Your task to perform on an android device: Go to notification settings Image 0: 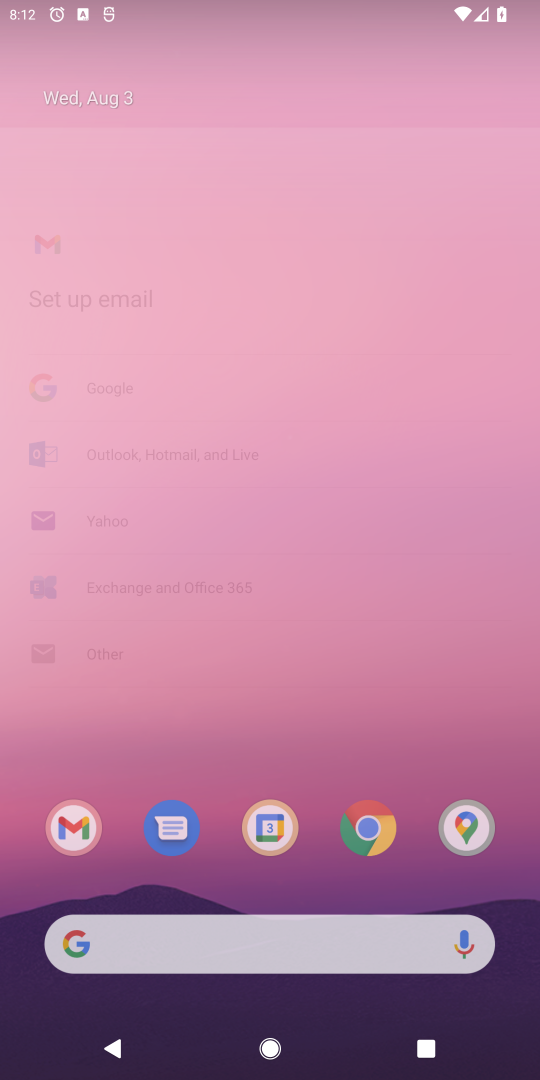
Step 0: press home button
Your task to perform on an android device: Go to notification settings Image 1: 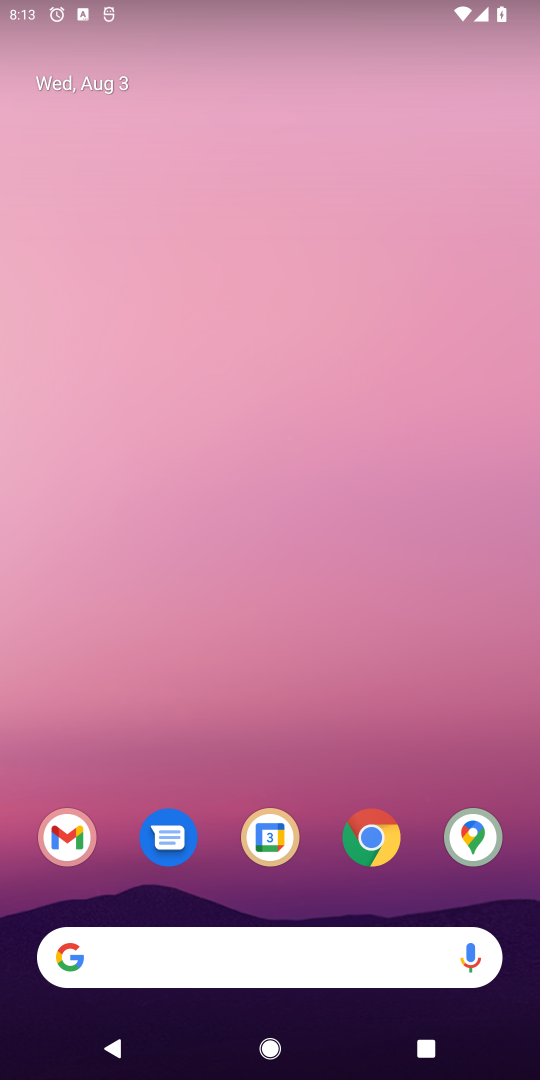
Step 1: drag from (222, 913) to (310, 240)
Your task to perform on an android device: Go to notification settings Image 2: 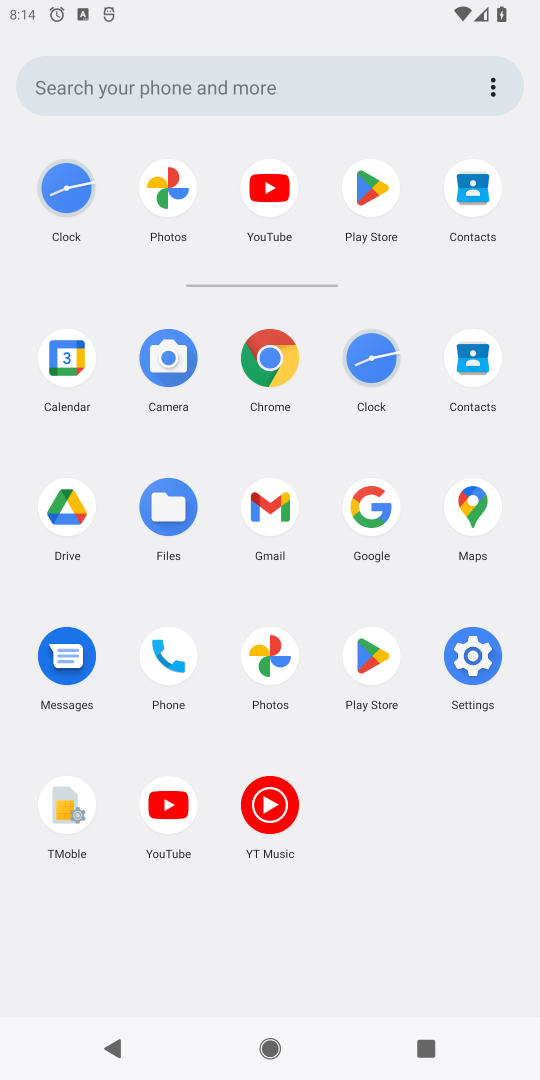
Step 2: click (477, 665)
Your task to perform on an android device: Go to notification settings Image 3: 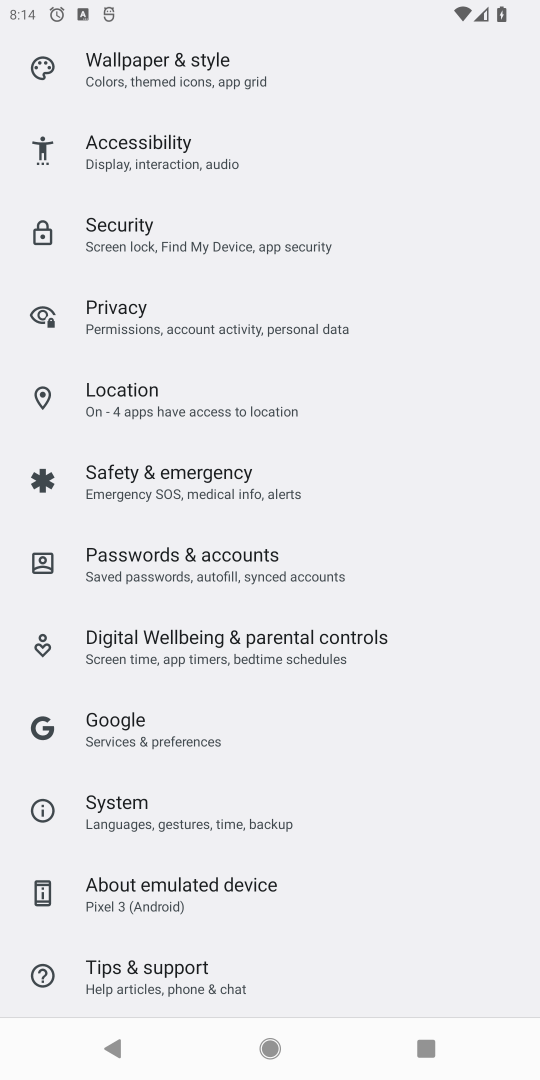
Step 3: drag from (358, 275) to (421, 1054)
Your task to perform on an android device: Go to notification settings Image 4: 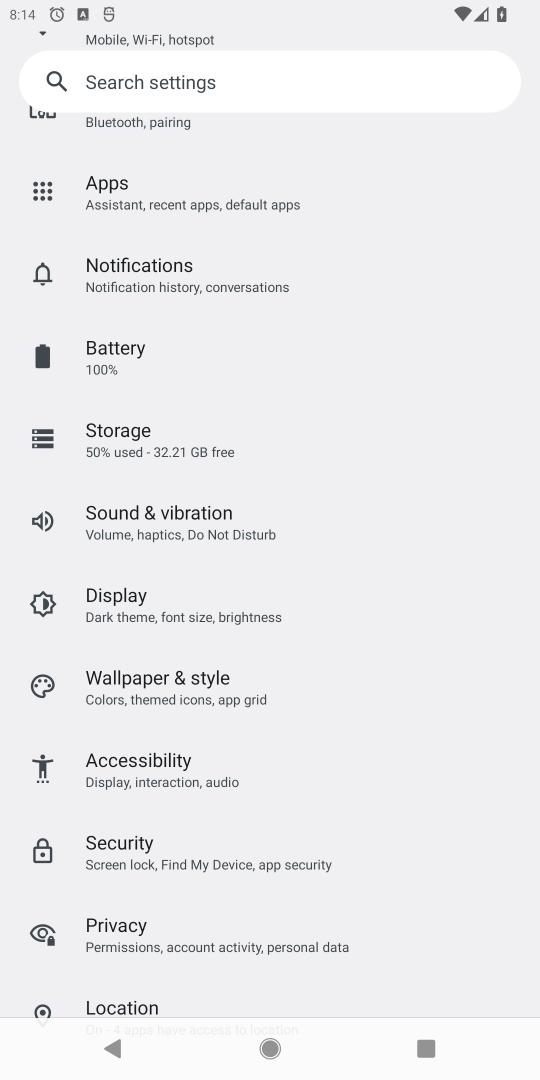
Step 4: click (139, 274)
Your task to perform on an android device: Go to notification settings Image 5: 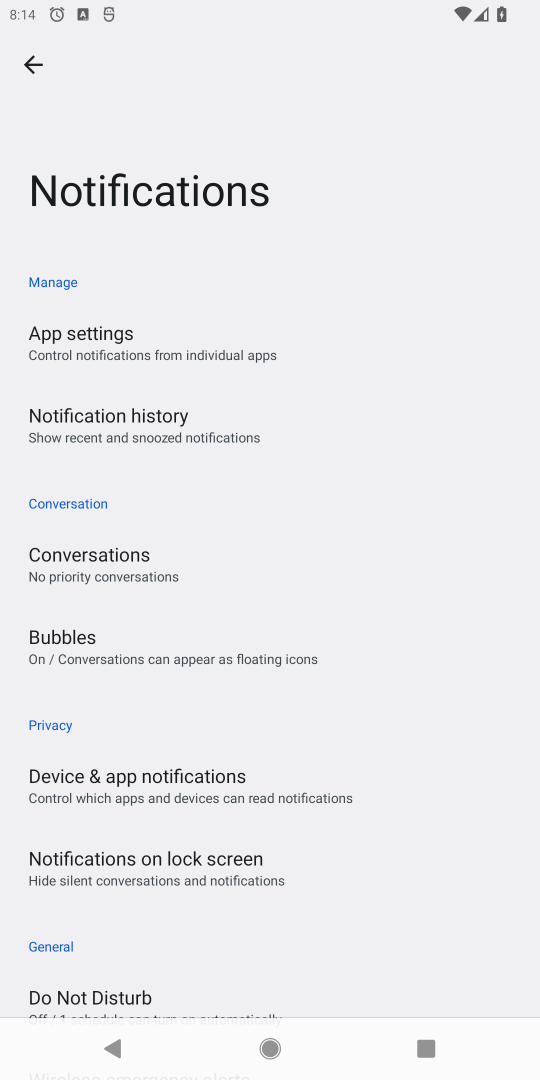
Step 5: task complete